Your task to perform on an android device: Open network settings Image 0: 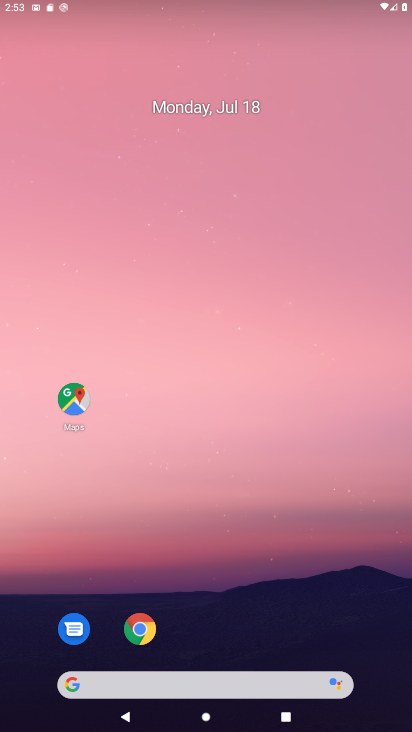
Step 0: drag from (302, 625) to (326, 123)
Your task to perform on an android device: Open network settings Image 1: 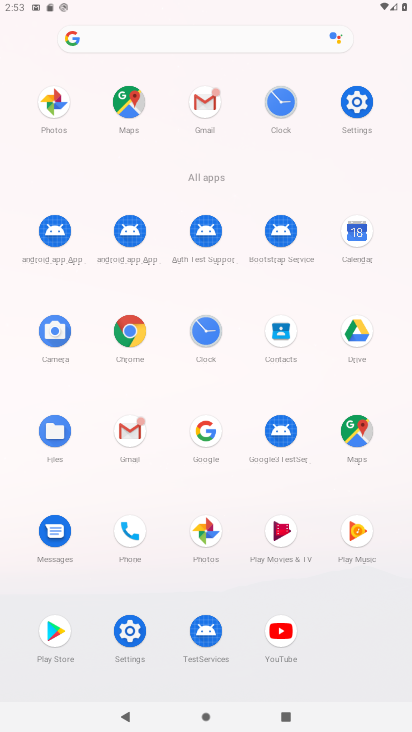
Step 1: click (361, 110)
Your task to perform on an android device: Open network settings Image 2: 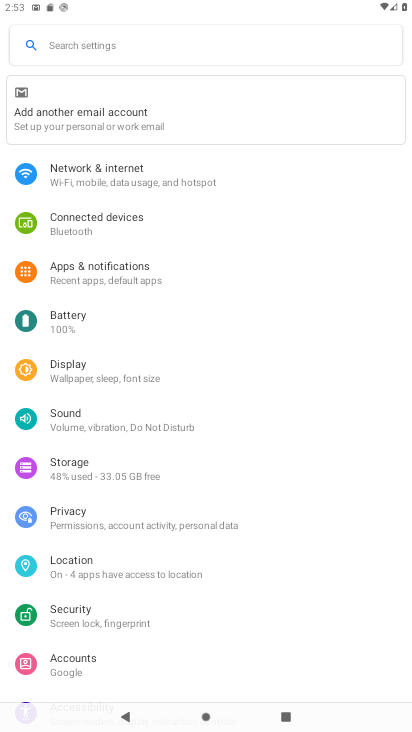
Step 2: drag from (336, 488) to (336, 402)
Your task to perform on an android device: Open network settings Image 3: 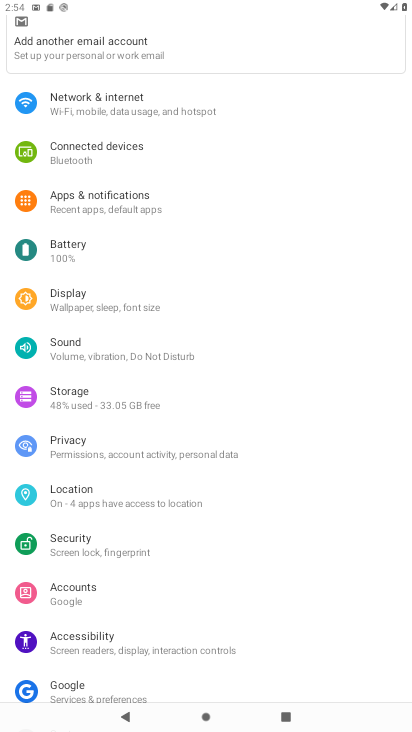
Step 3: drag from (333, 492) to (340, 376)
Your task to perform on an android device: Open network settings Image 4: 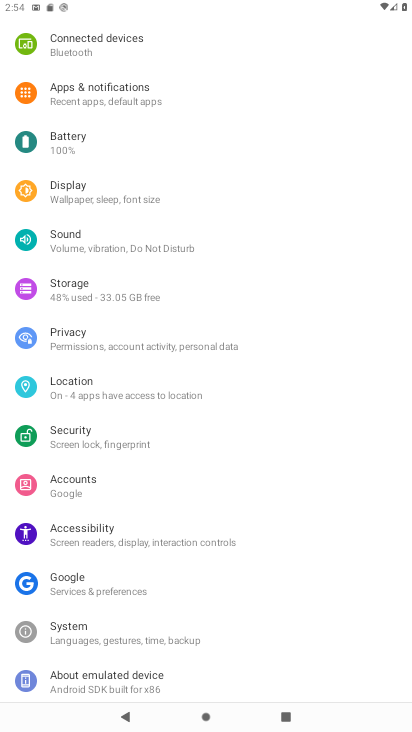
Step 4: drag from (336, 517) to (330, 305)
Your task to perform on an android device: Open network settings Image 5: 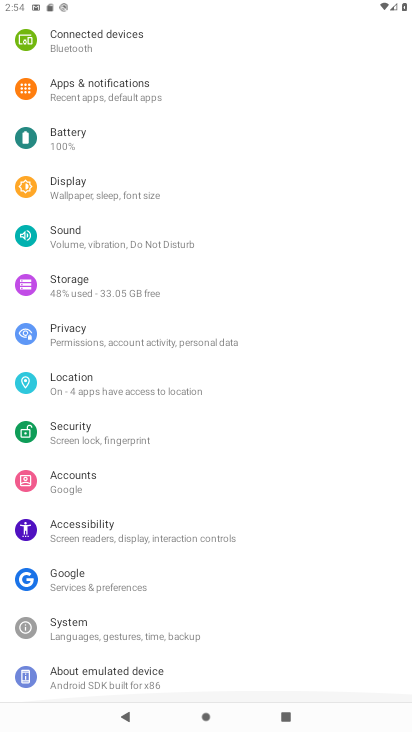
Step 5: drag from (331, 239) to (335, 409)
Your task to perform on an android device: Open network settings Image 6: 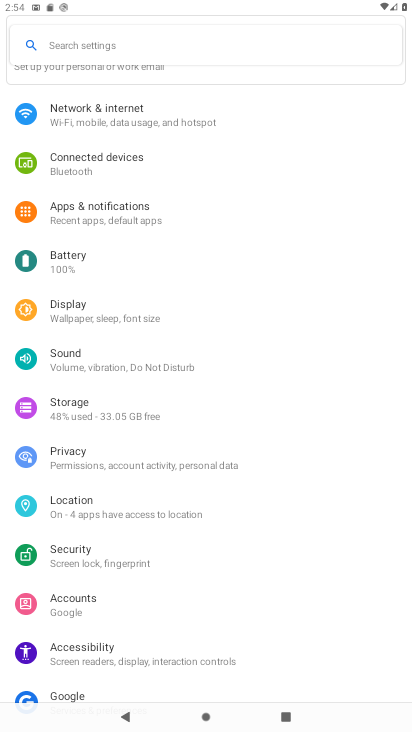
Step 6: drag from (319, 275) to (317, 461)
Your task to perform on an android device: Open network settings Image 7: 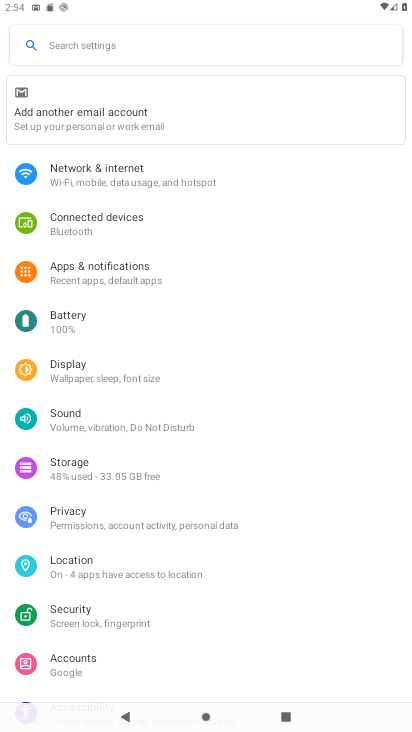
Step 7: click (196, 182)
Your task to perform on an android device: Open network settings Image 8: 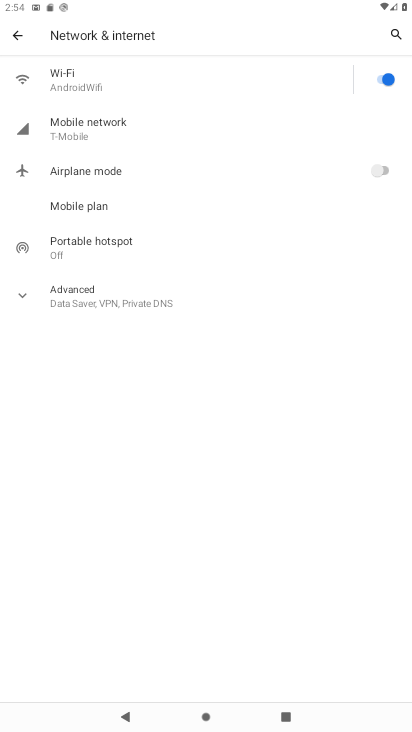
Step 8: task complete